Your task to perform on an android device: Open ESPN.com Image 0: 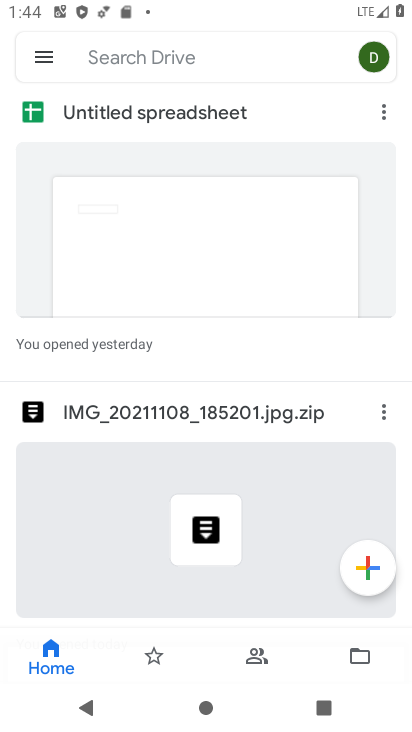
Step 0: press home button
Your task to perform on an android device: Open ESPN.com Image 1: 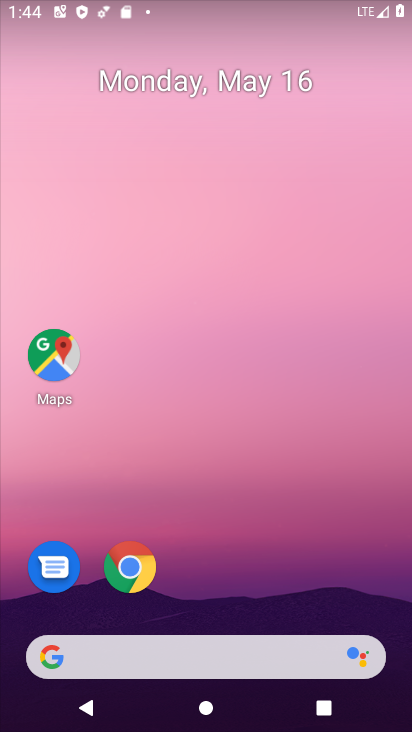
Step 1: click (145, 562)
Your task to perform on an android device: Open ESPN.com Image 2: 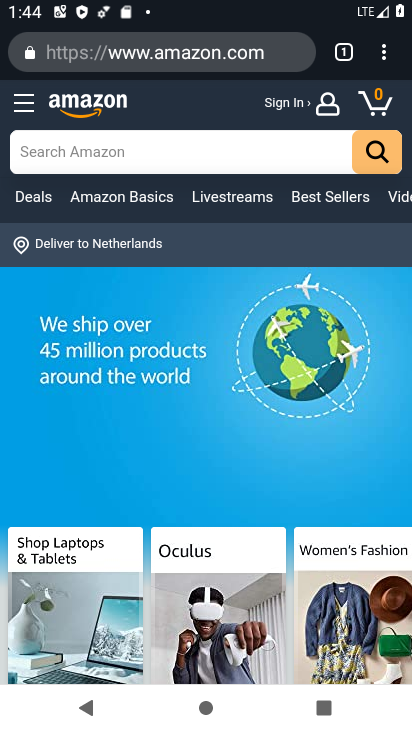
Step 2: click (201, 62)
Your task to perform on an android device: Open ESPN.com Image 3: 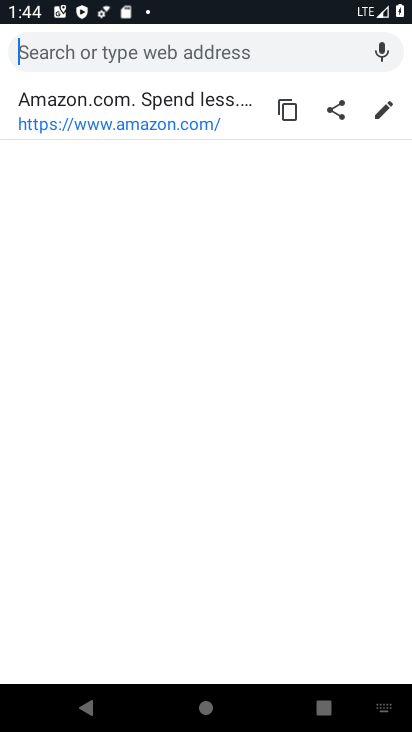
Step 3: type "espn.com"
Your task to perform on an android device: Open ESPN.com Image 4: 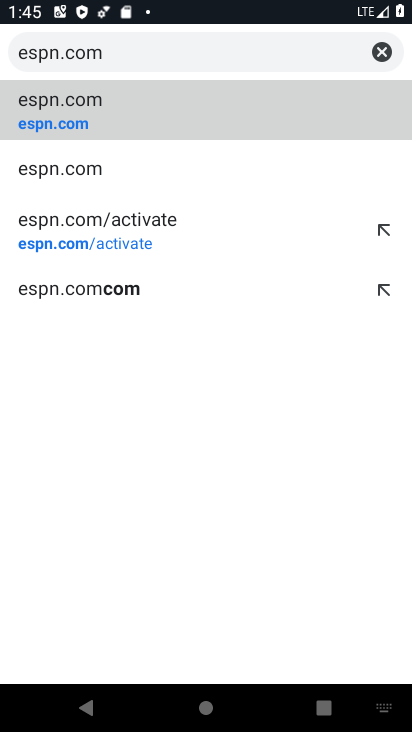
Step 4: click (117, 114)
Your task to perform on an android device: Open ESPN.com Image 5: 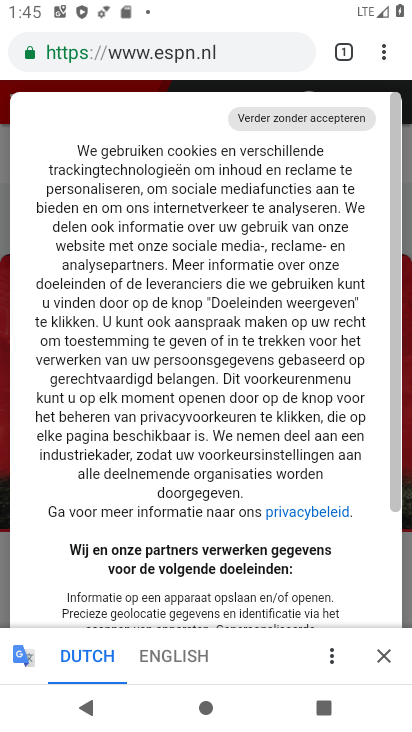
Step 5: task complete